Your task to perform on an android device: Open the web browser Image 0: 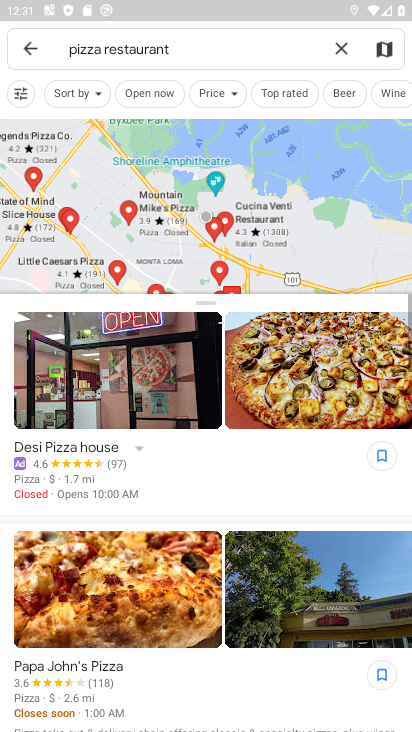
Step 0: press home button
Your task to perform on an android device: Open the web browser Image 1: 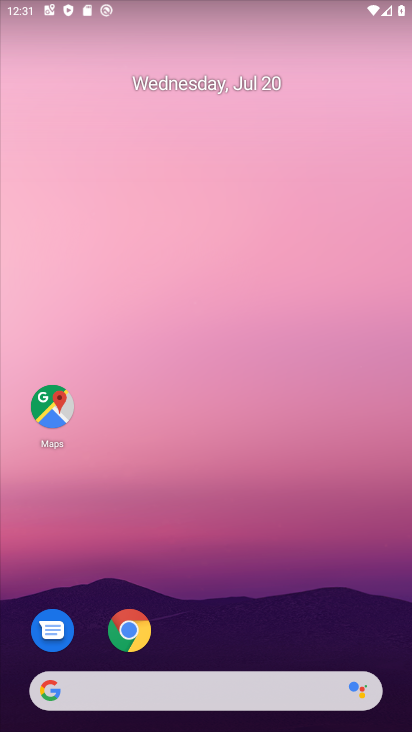
Step 1: click (47, 691)
Your task to perform on an android device: Open the web browser Image 2: 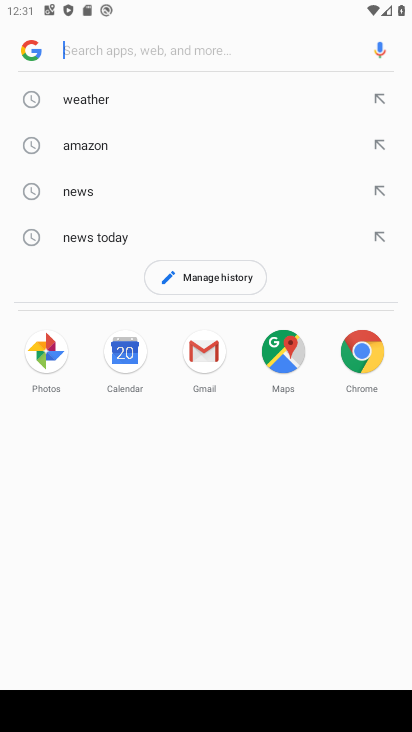
Step 2: click (33, 51)
Your task to perform on an android device: Open the web browser Image 3: 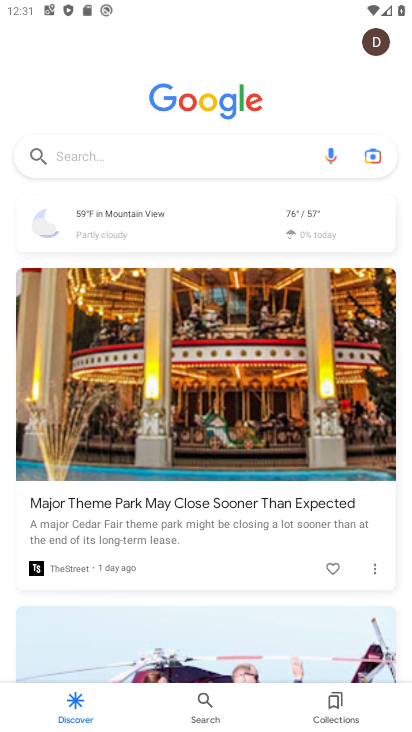
Step 3: task complete